Your task to perform on an android device: Open my contact list Image 0: 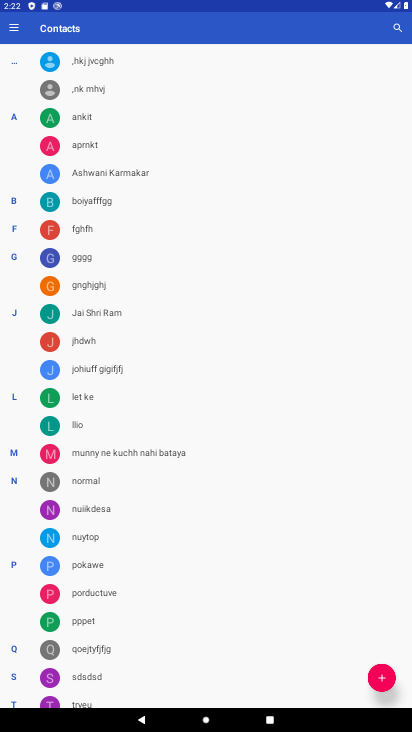
Step 0: press home button
Your task to perform on an android device: Open my contact list Image 1: 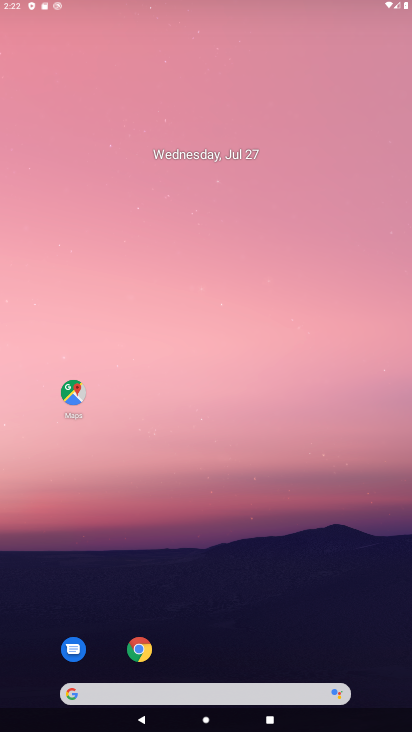
Step 1: drag from (386, 635) to (232, 74)
Your task to perform on an android device: Open my contact list Image 2: 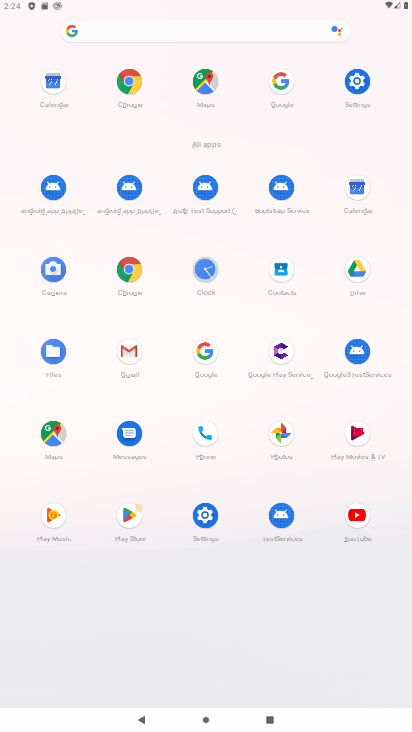
Step 2: click (271, 270)
Your task to perform on an android device: Open my contact list Image 3: 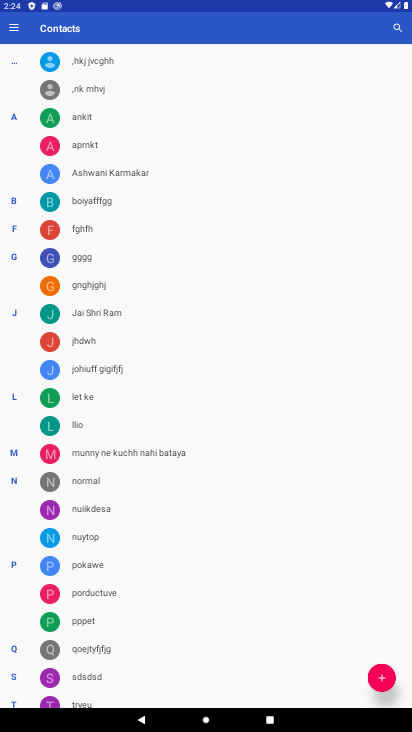
Step 3: task complete